Your task to perform on an android device: open sync settings in chrome Image 0: 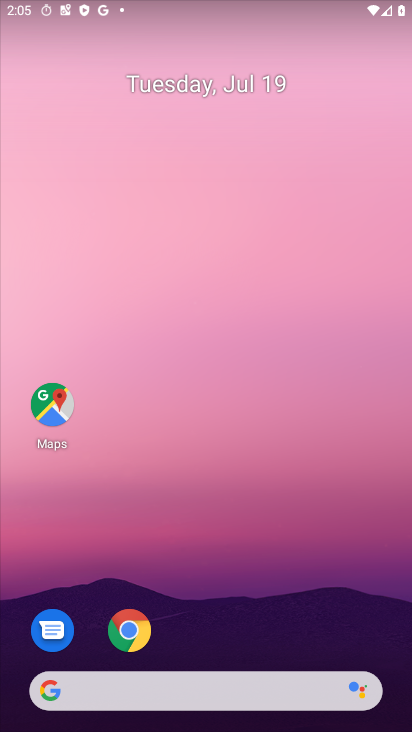
Step 0: click (128, 635)
Your task to perform on an android device: open sync settings in chrome Image 1: 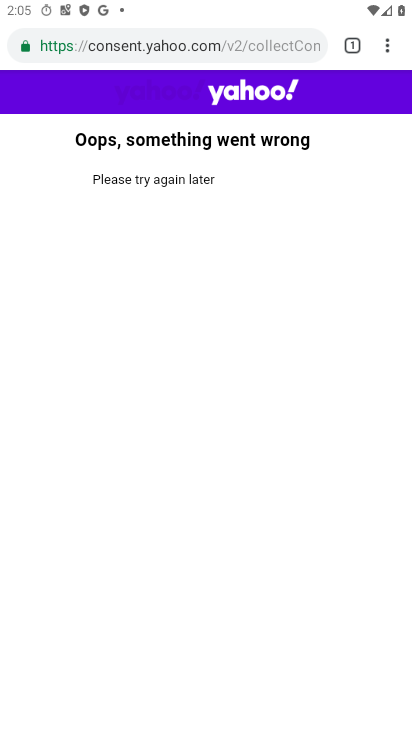
Step 1: click (386, 52)
Your task to perform on an android device: open sync settings in chrome Image 2: 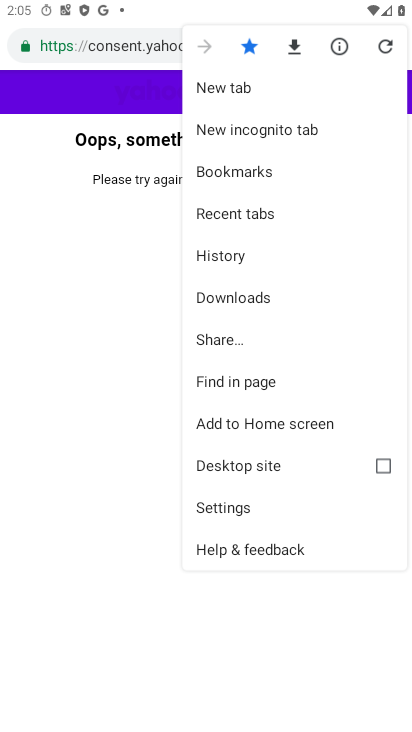
Step 2: click (251, 501)
Your task to perform on an android device: open sync settings in chrome Image 3: 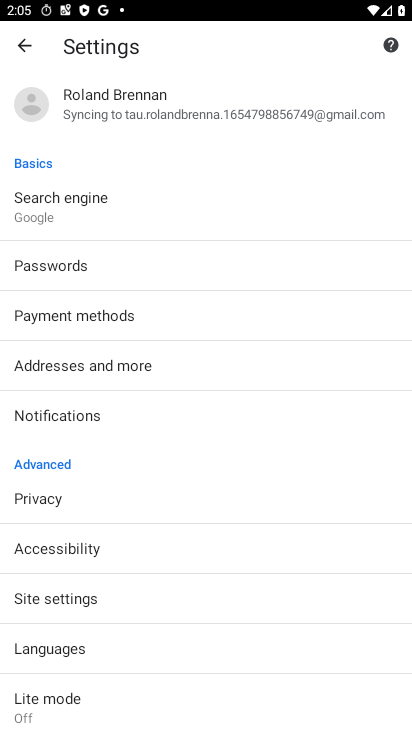
Step 3: click (176, 118)
Your task to perform on an android device: open sync settings in chrome Image 4: 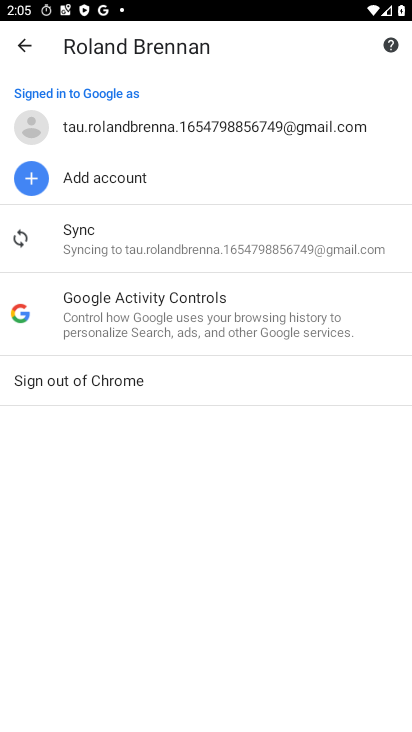
Step 4: click (144, 240)
Your task to perform on an android device: open sync settings in chrome Image 5: 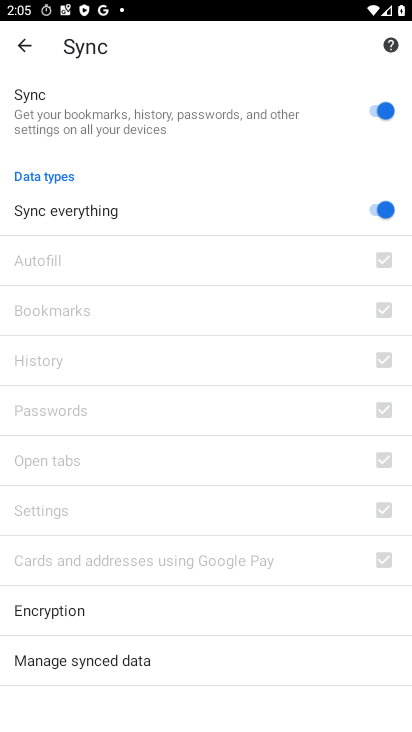
Step 5: task complete